Your task to perform on an android device: turn on sleep mode Image 0: 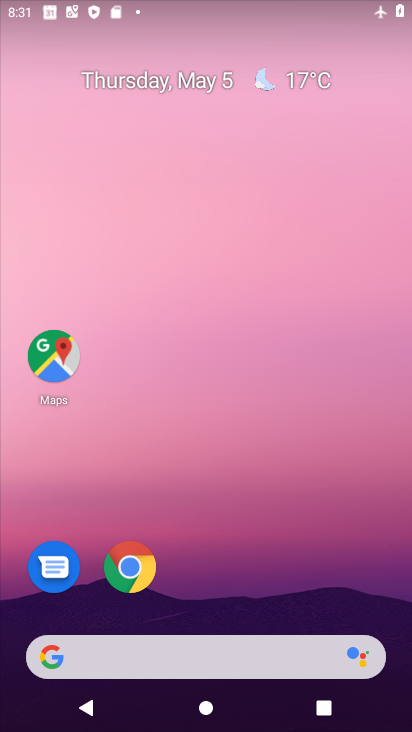
Step 0: drag from (266, 522) to (287, 19)
Your task to perform on an android device: turn on sleep mode Image 1: 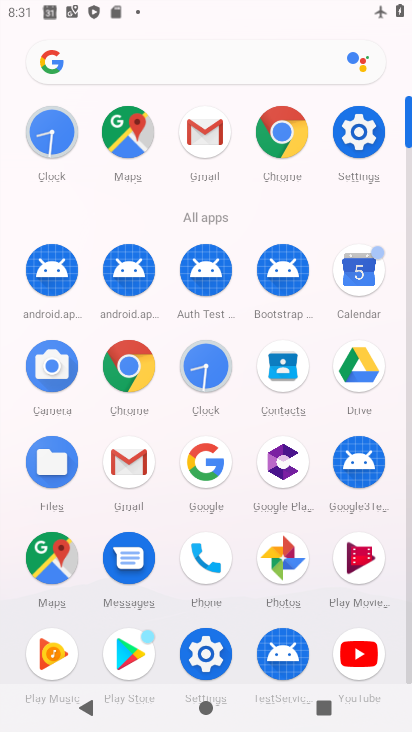
Step 1: click (353, 135)
Your task to perform on an android device: turn on sleep mode Image 2: 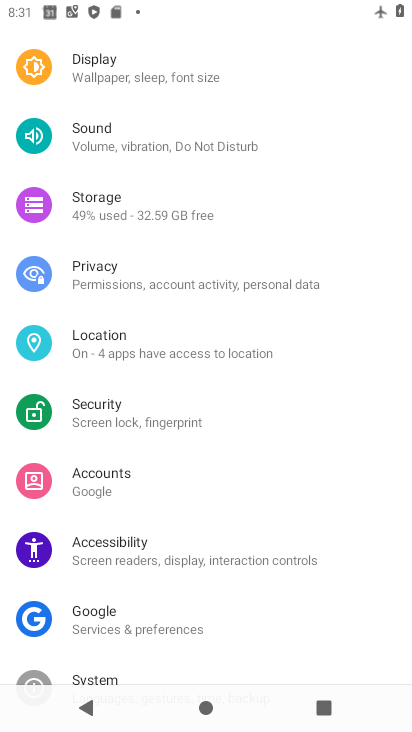
Step 2: click (204, 75)
Your task to perform on an android device: turn on sleep mode Image 3: 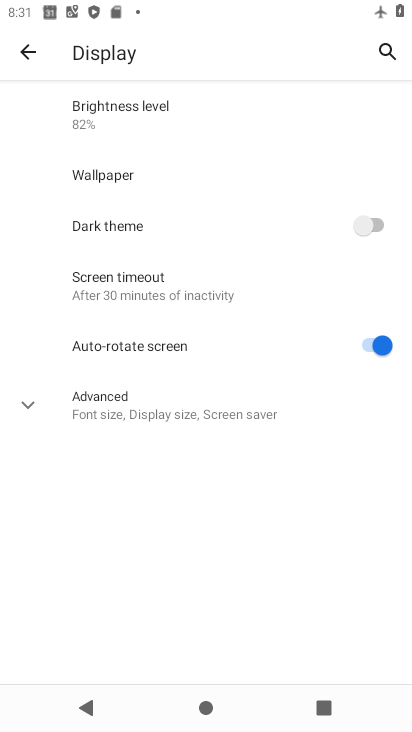
Step 3: click (17, 396)
Your task to perform on an android device: turn on sleep mode Image 4: 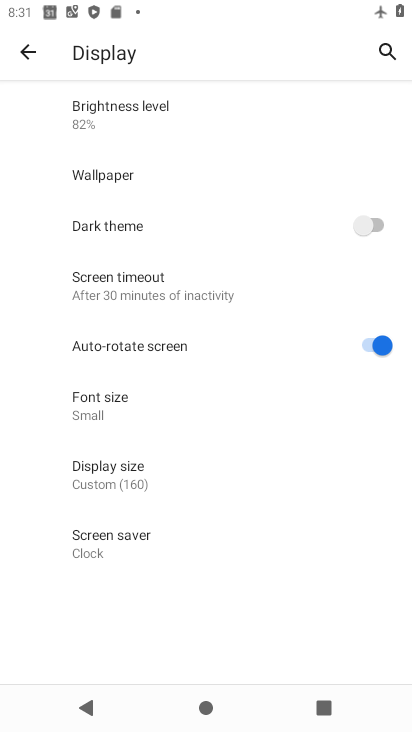
Step 4: task complete